Your task to perform on an android device: toggle show notifications on the lock screen Image 0: 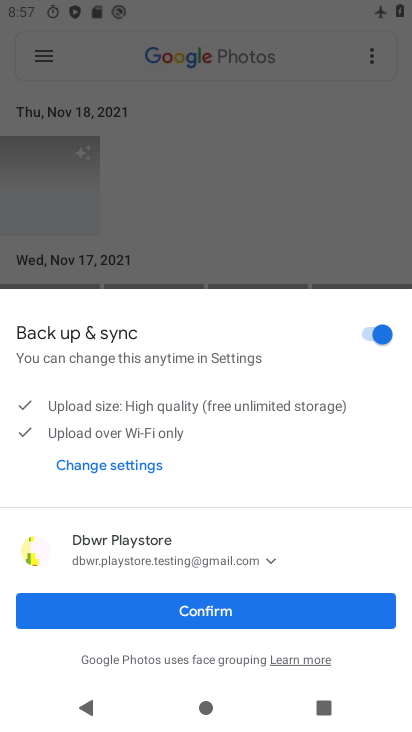
Step 0: press home button
Your task to perform on an android device: toggle show notifications on the lock screen Image 1: 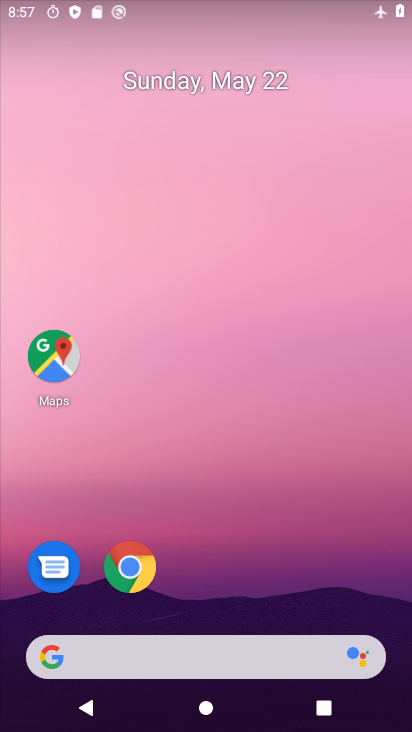
Step 1: drag from (198, 608) to (221, 11)
Your task to perform on an android device: toggle show notifications on the lock screen Image 2: 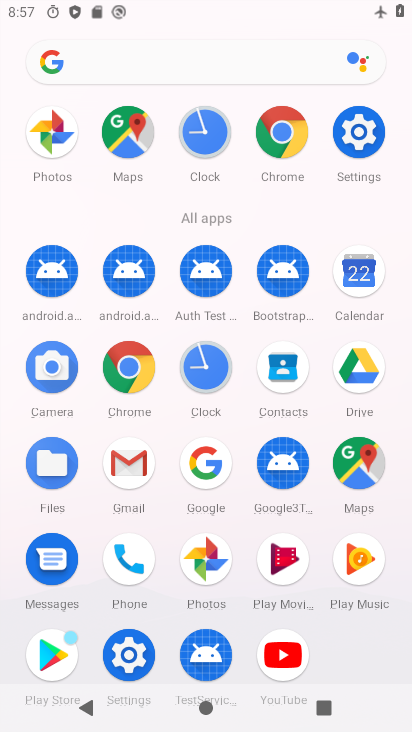
Step 2: click (354, 142)
Your task to perform on an android device: toggle show notifications on the lock screen Image 3: 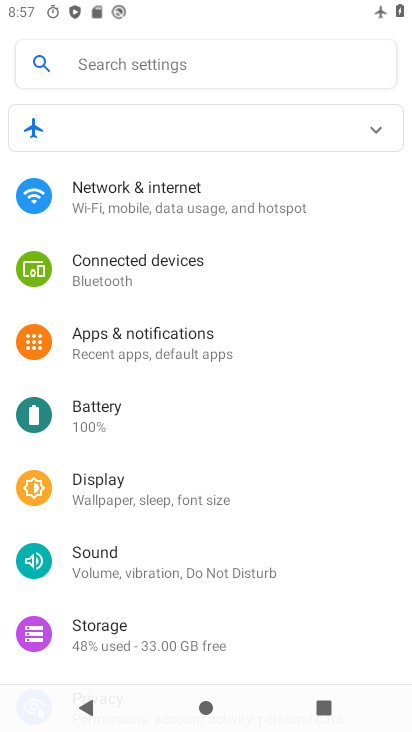
Step 3: click (166, 337)
Your task to perform on an android device: toggle show notifications on the lock screen Image 4: 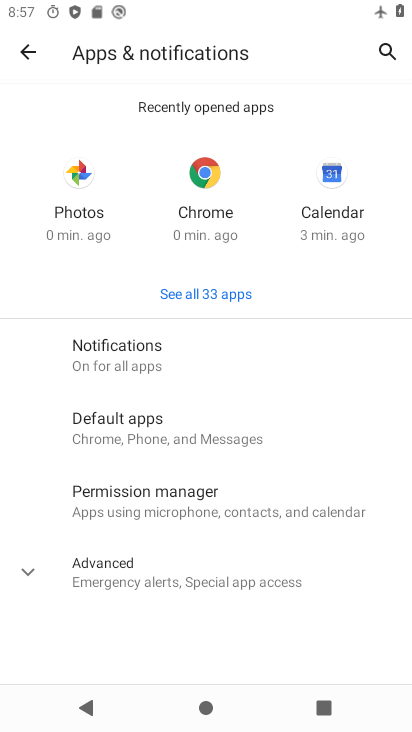
Step 4: click (127, 341)
Your task to perform on an android device: toggle show notifications on the lock screen Image 5: 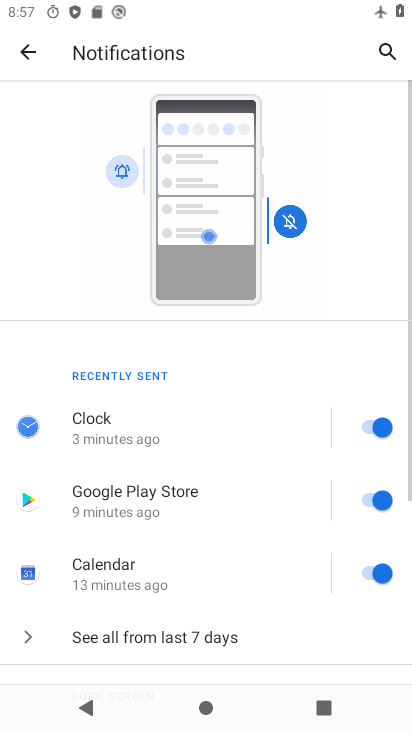
Step 5: drag from (195, 582) to (307, 103)
Your task to perform on an android device: toggle show notifications on the lock screen Image 6: 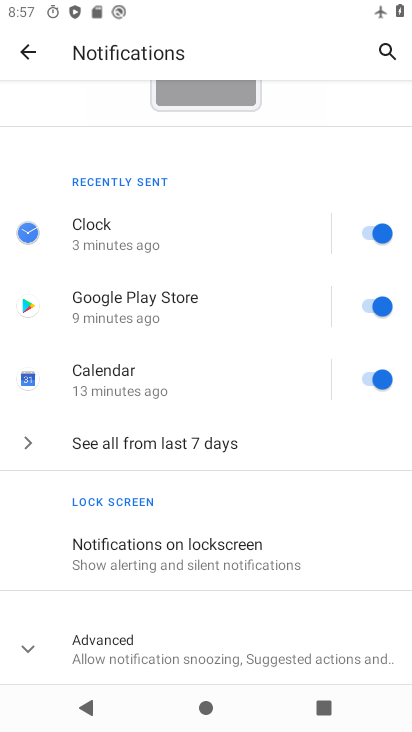
Step 6: click (186, 563)
Your task to perform on an android device: toggle show notifications on the lock screen Image 7: 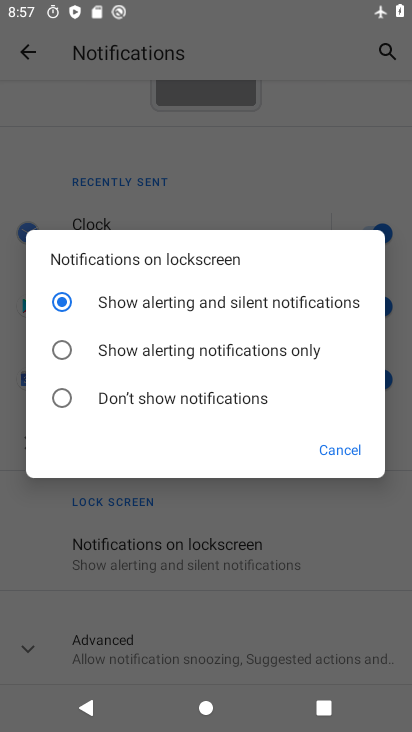
Step 7: click (59, 402)
Your task to perform on an android device: toggle show notifications on the lock screen Image 8: 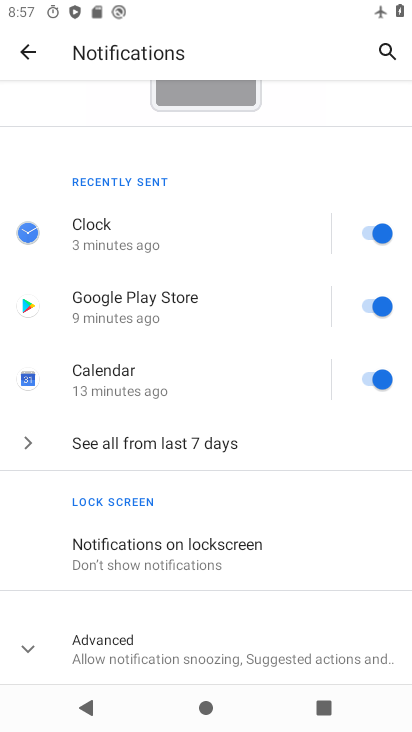
Step 8: task complete